Your task to perform on an android device: turn on wifi Image 0: 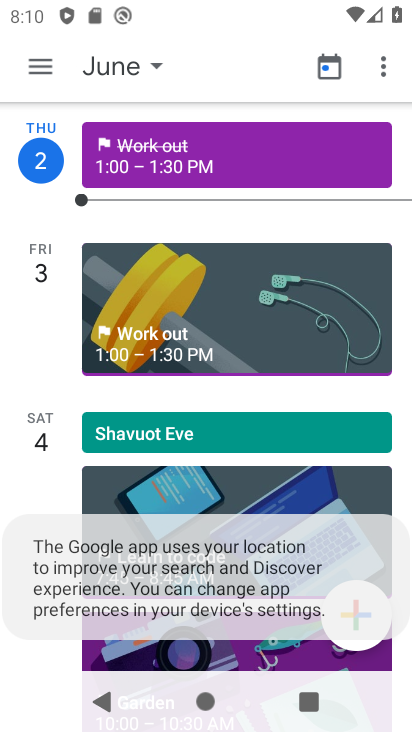
Step 0: press home button
Your task to perform on an android device: turn on wifi Image 1: 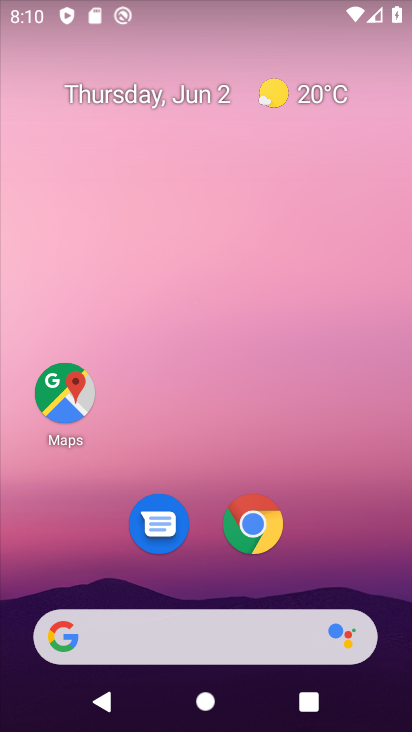
Step 1: drag from (353, 539) to (319, 15)
Your task to perform on an android device: turn on wifi Image 2: 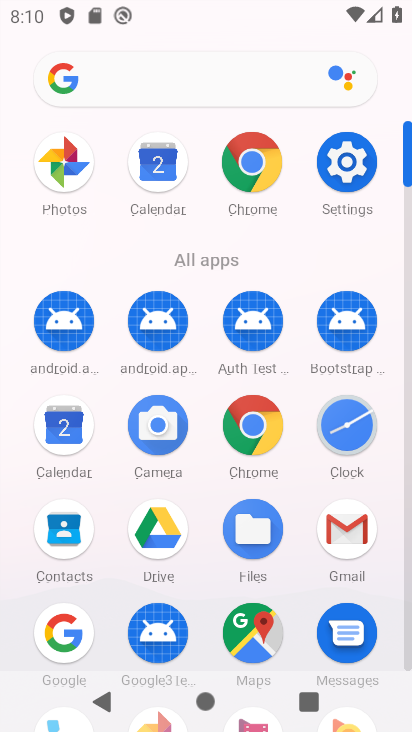
Step 2: click (353, 174)
Your task to perform on an android device: turn on wifi Image 3: 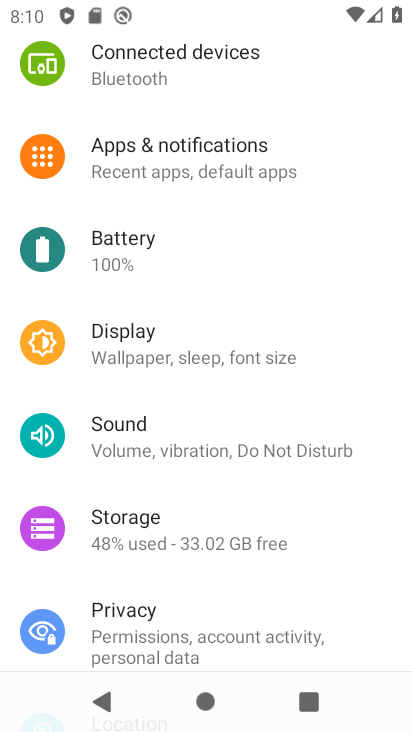
Step 3: drag from (257, 212) to (268, 451)
Your task to perform on an android device: turn on wifi Image 4: 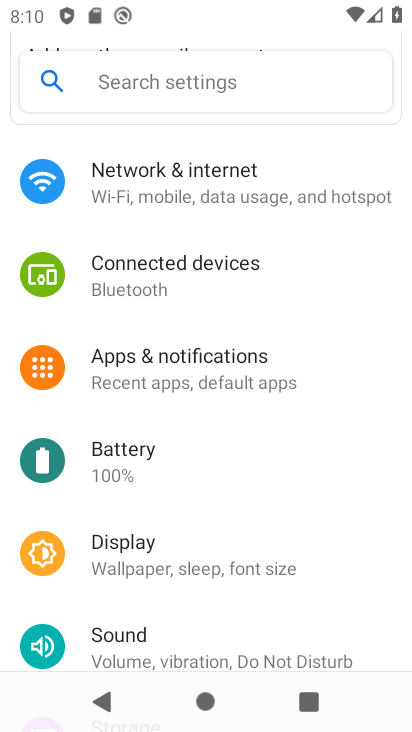
Step 4: click (197, 180)
Your task to perform on an android device: turn on wifi Image 5: 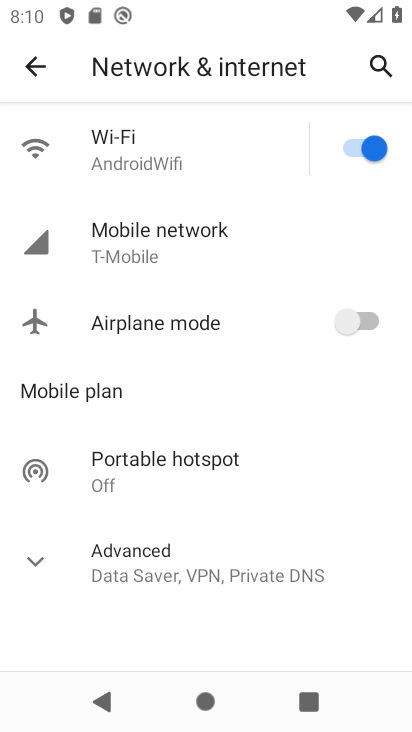
Step 5: task complete